Your task to perform on an android device: What's a good restaurant in San Diego? Image 0: 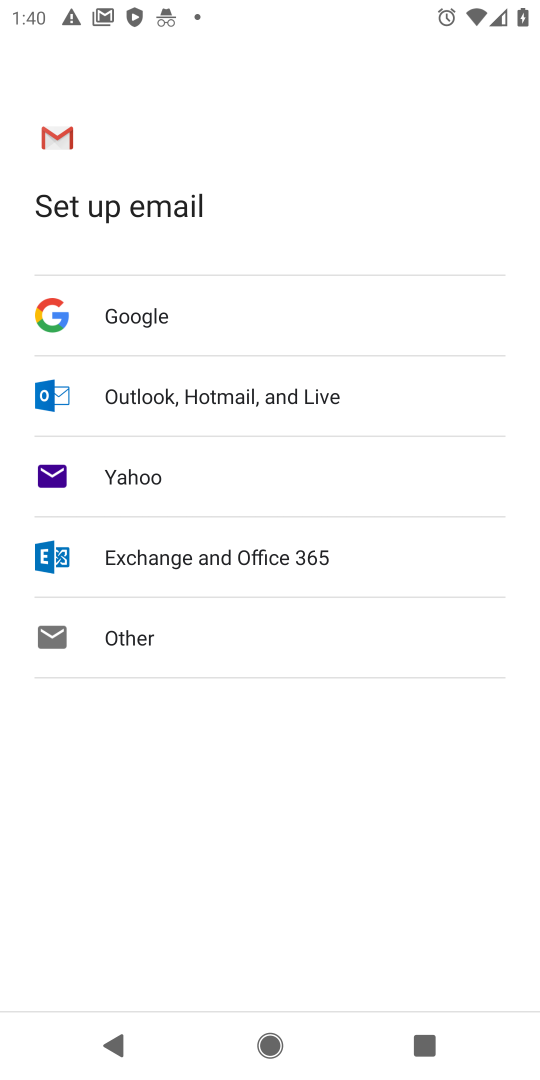
Step 0: press home button
Your task to perform on an android device: What's a good restaurant in San Diego? Image 1: 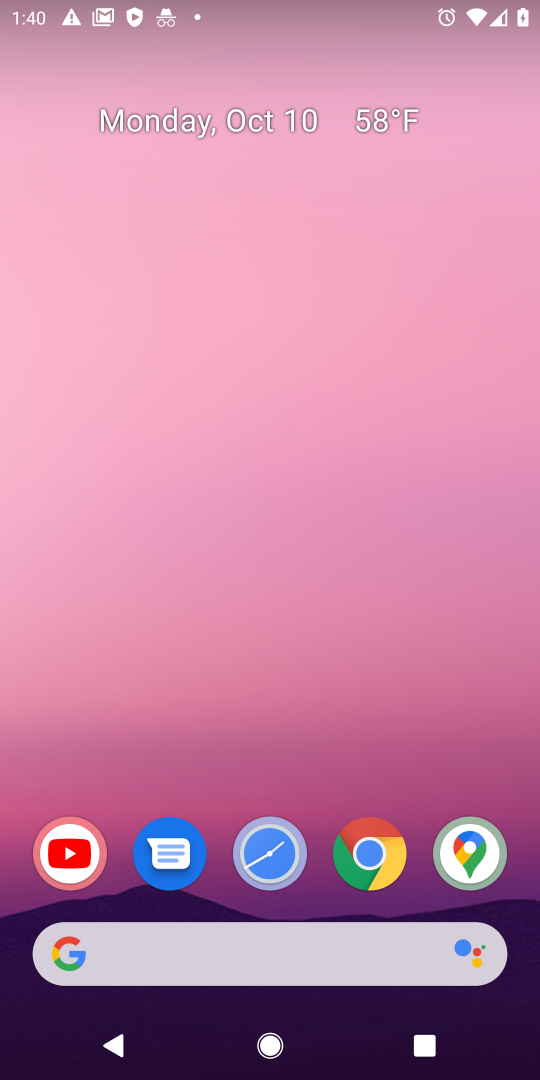
Step 1: click (362, 866)
Your task to perform on an android device: What's a good restaurant in San Diego? Image 2: 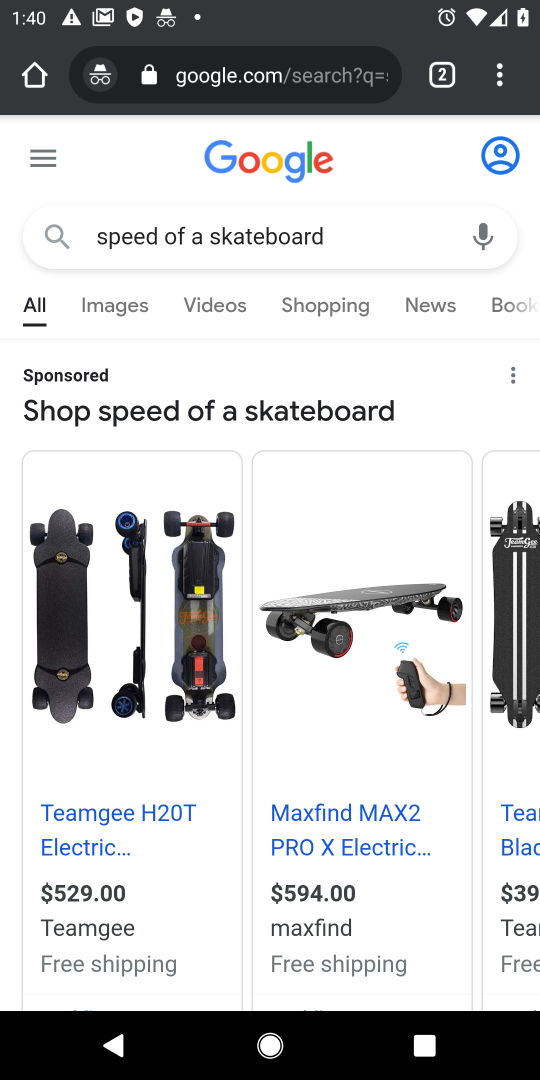
Step 2: click (364, 236)
Your task to perform on an android device: What's a good restaurant in San Diego? Image 3: 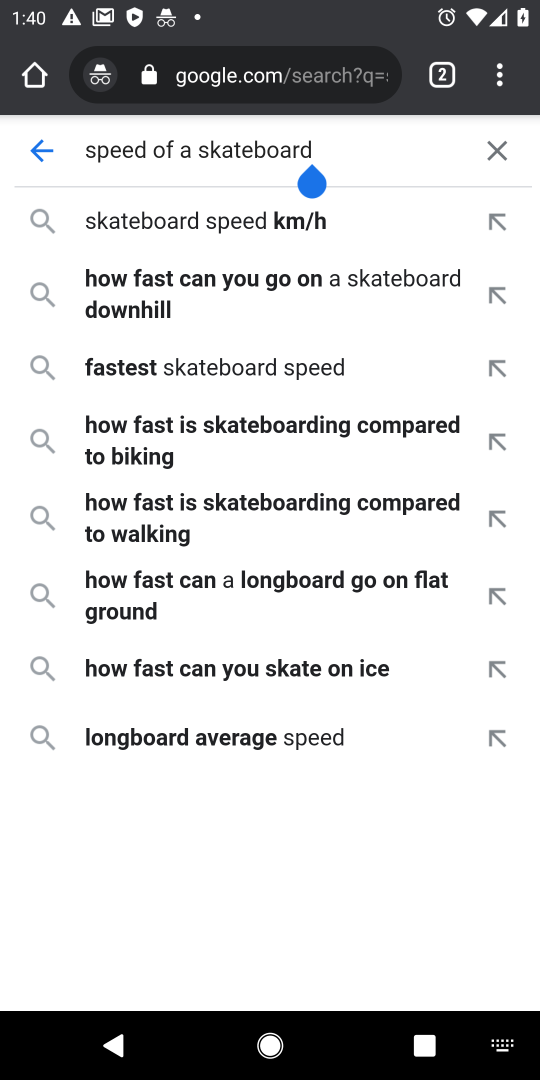
Step 3: click (506, 146)
Your task to perform on an android device: What's a good restaurant in San Diego? Image 4: 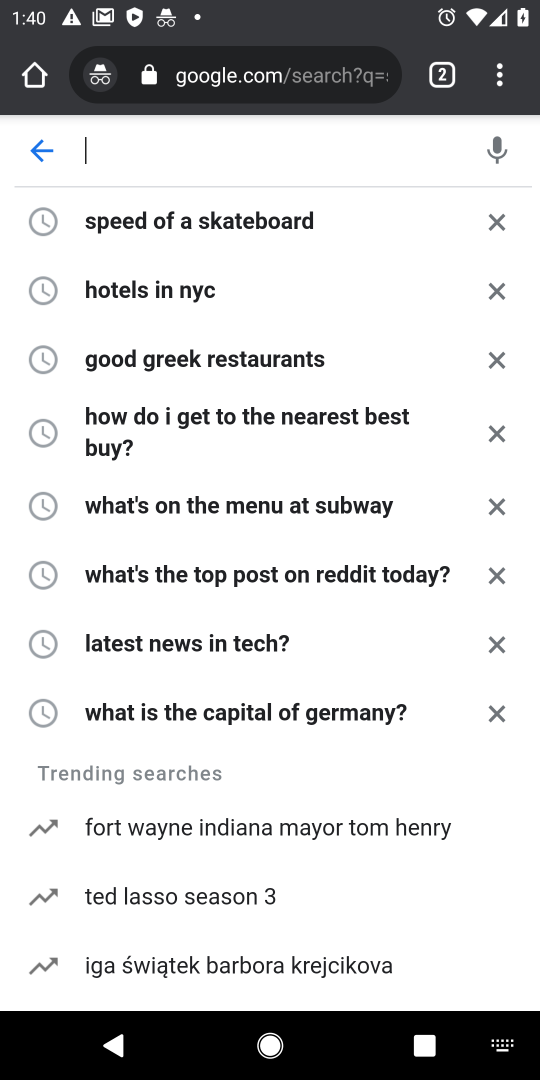
Step 4: type "What's a good restaurant in San Diego?"
Your task to perform on an android device: What's a good restaurant in San Diego? Image 5: 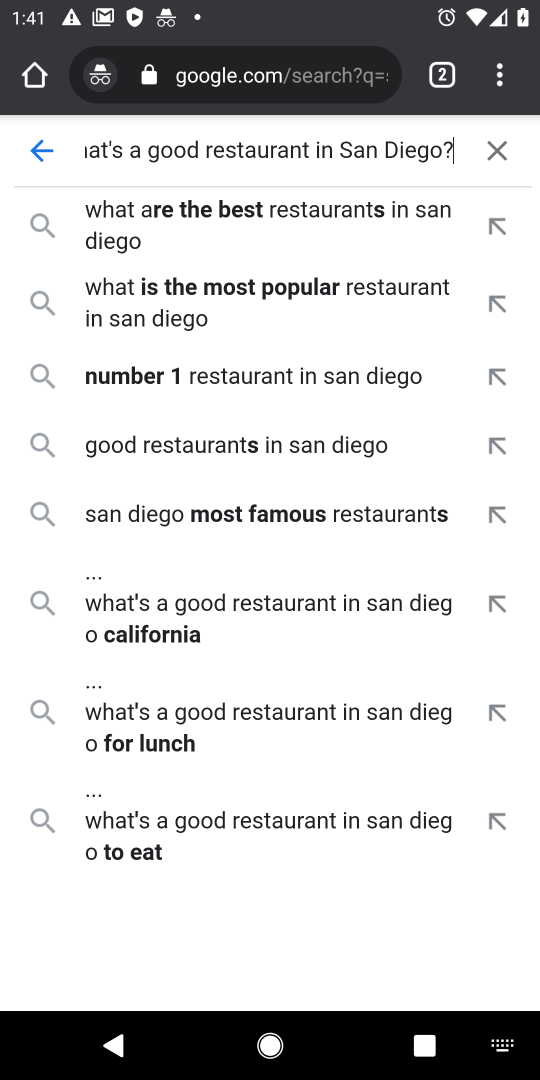
Step 5: press enter
Your task to perform on an android device: What's a good restaurant in San Diego? Image 6: 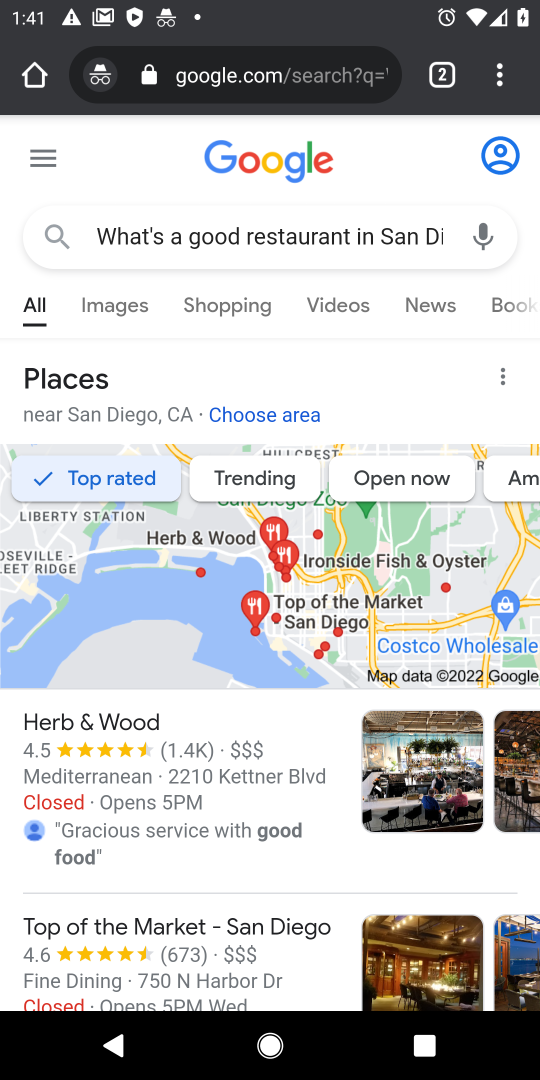
Step 6: task complete